Your task to perform on an android device: check battery use Image 0: 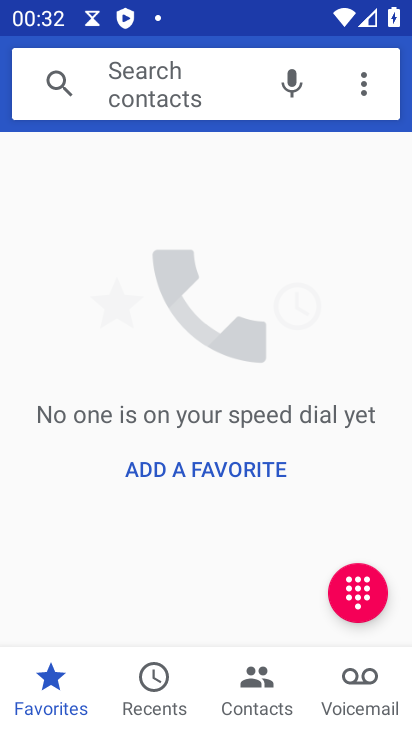
Step 0: press home button
Your task to perform on an android device: check battery use Image 1: 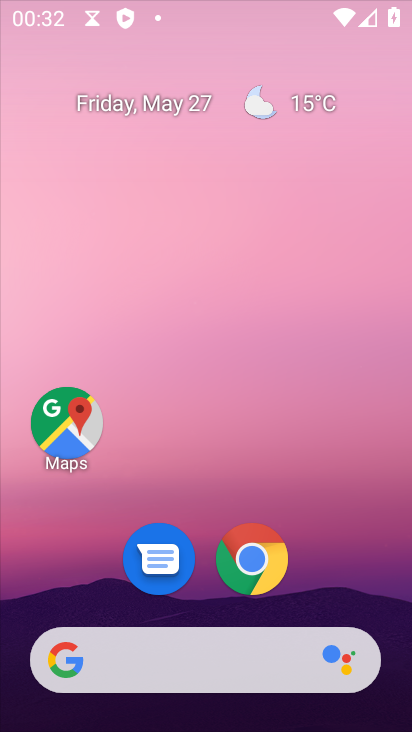
Step 1: drag from (333, 351) to (232, 10)
Your task to perform on an android device: check battery use Image 2: 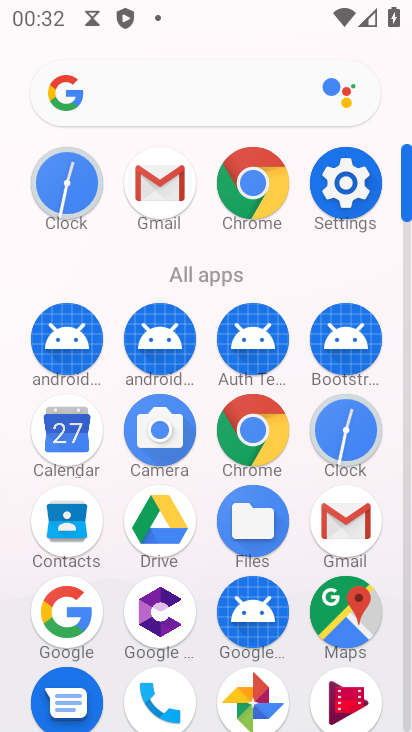
Step 2: click (342, 194)
Your task to perform on an android device: check battery use Image 3: 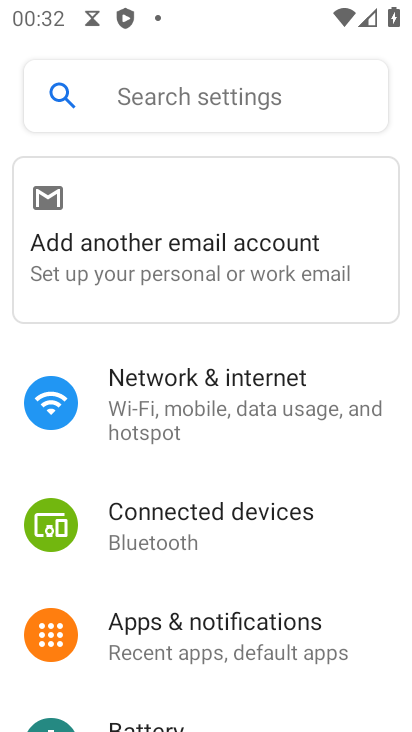
Step 3: drag from (219, 435) to (221, 144)
Your task to perform on an android device: check battery use Image 4: 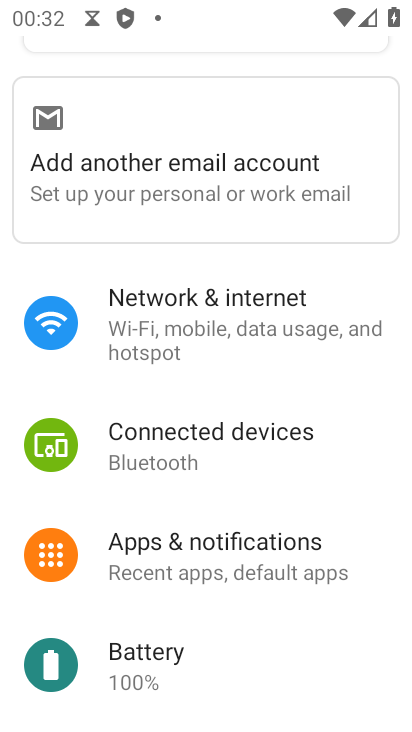
Step 4: click (67, 665)
Your task to perform on an android device: check battery use Image 5: 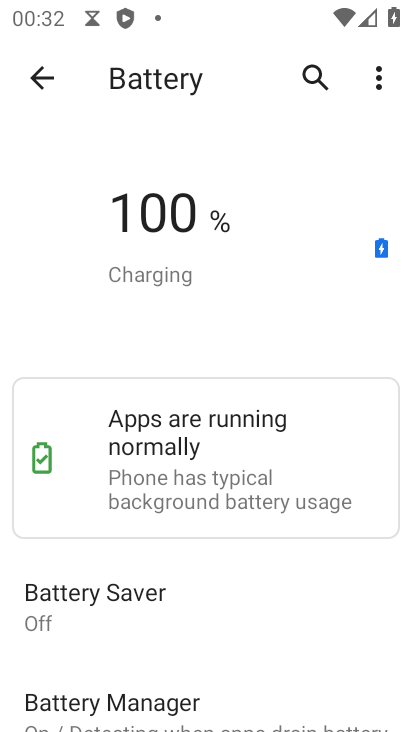
Step 5: click (376, 72)
Your task to perform on an android device: check battery use Image 6: 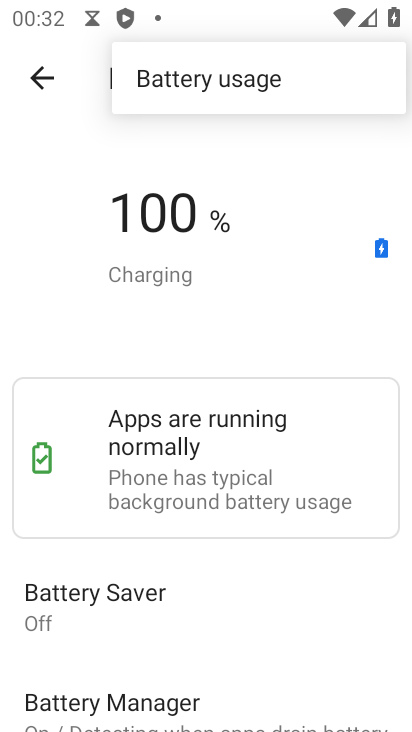
Step 6: click (291, 73)
Your task to perform on an android device: check battery use Image 7: 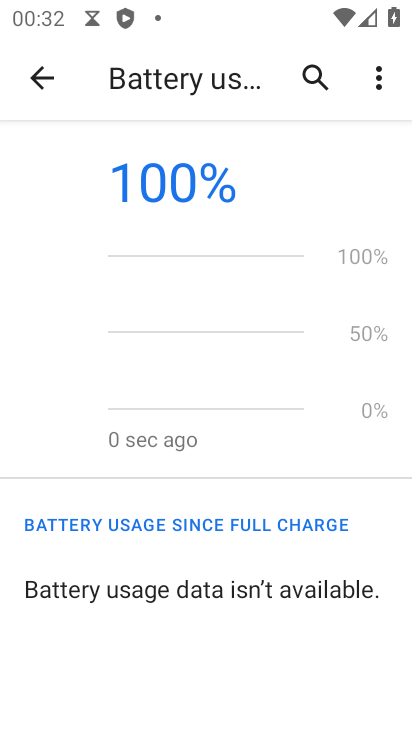
Step 7: task complete